Your task to perform on an android device: check the backup settings in the google photos Image 0: 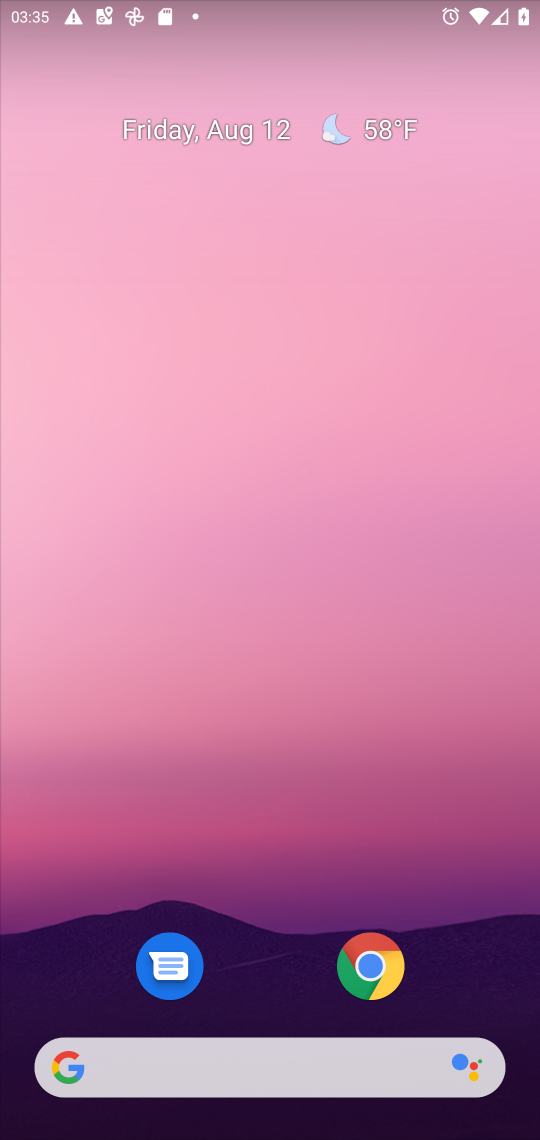
Step 0: drag from (250, 852) to (408, 55)
Your task to perform on an android device: check the backup settings in the google photos Image 1: 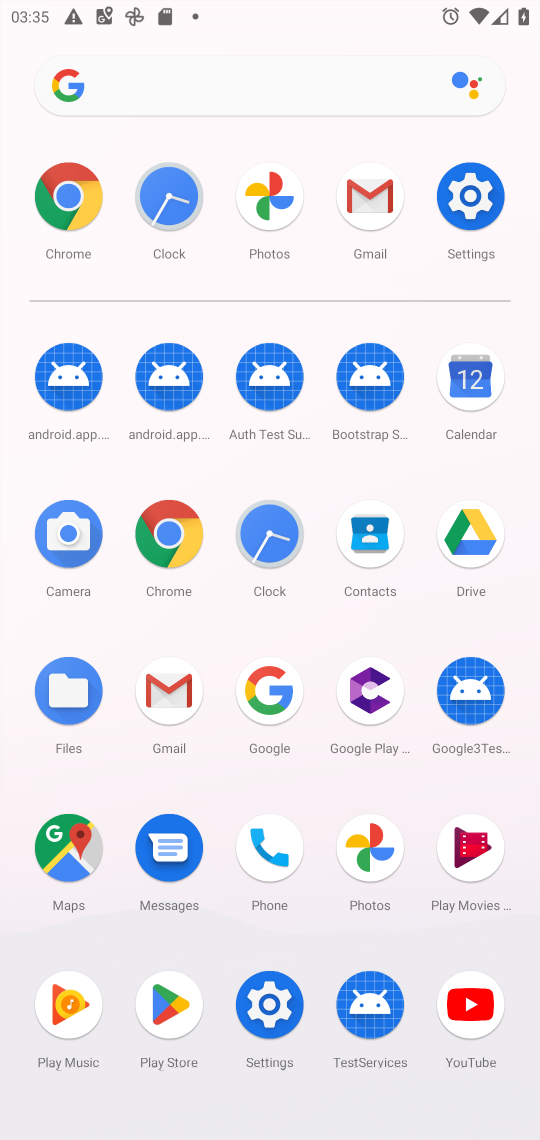
Step 1: click (353, 839)
Your task to perform on an android device: check the backup settings in the google photos Image 2: 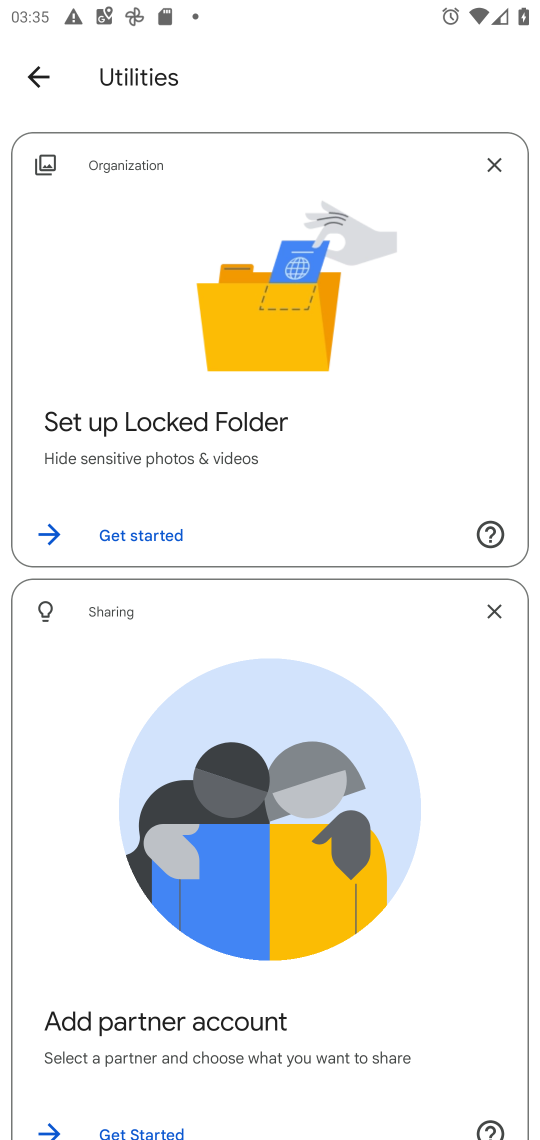
Step 2: click (31, 72)
Your task to perform on an android device: check the backup settings in the google photos Image 3: 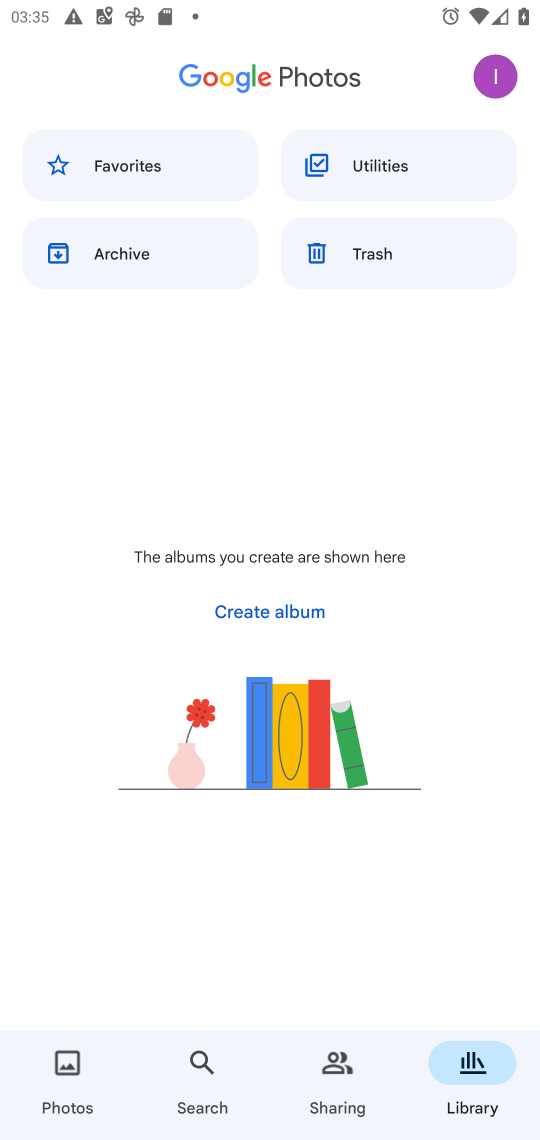
Step 3: click (500, 72)
Your task to perform on an android device: check the backup settings in the google photos Image 4: 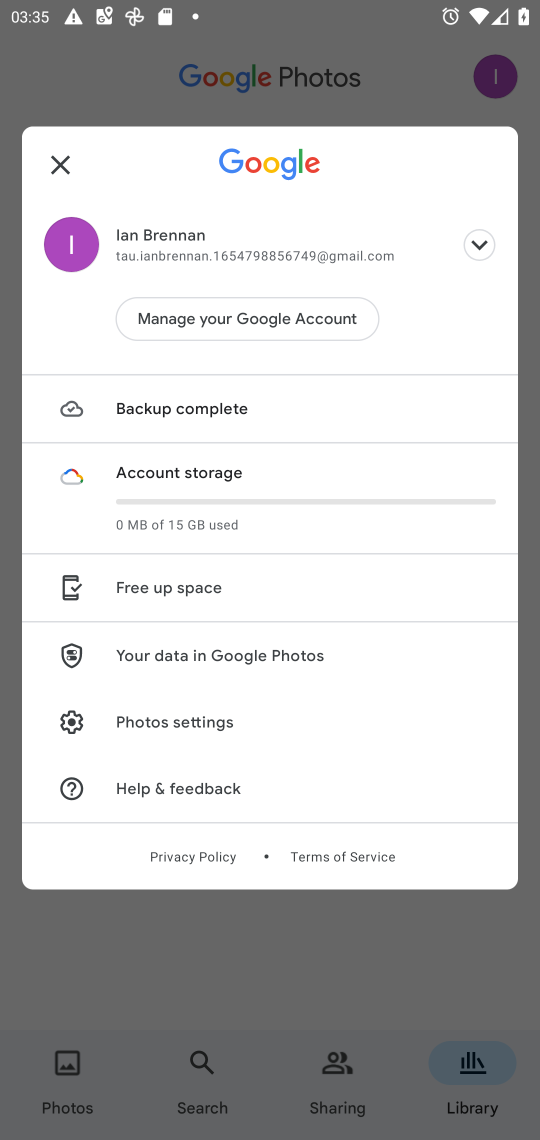
Step 4: click (184, 715)
Your task to perform on an android device: check the backup settings in the google photos Image 5: 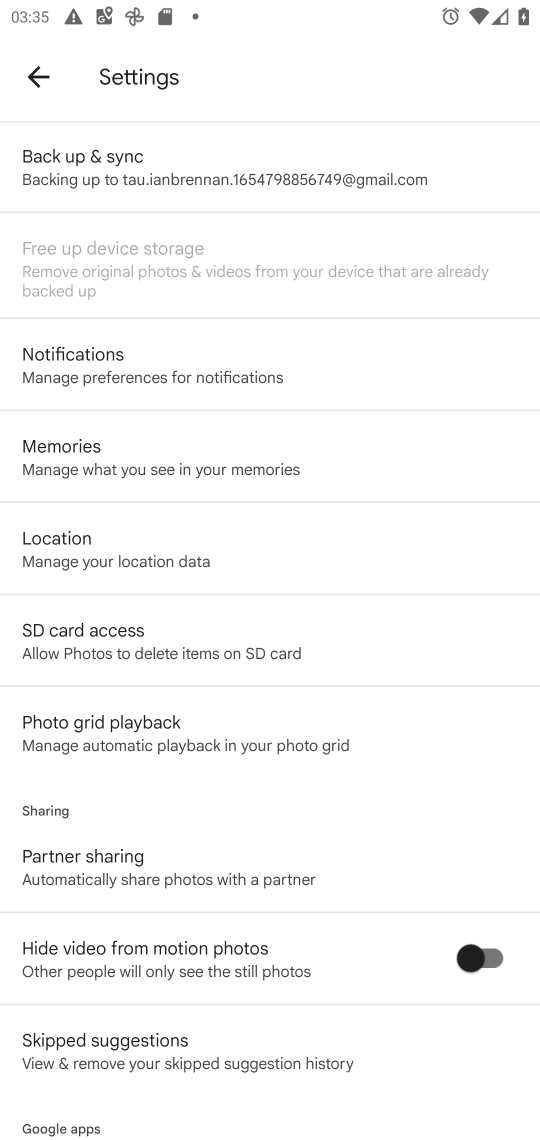
Step 5: click (207, 157)
Your task to perform on an android device: check the backup settings in the google photos Image 6: 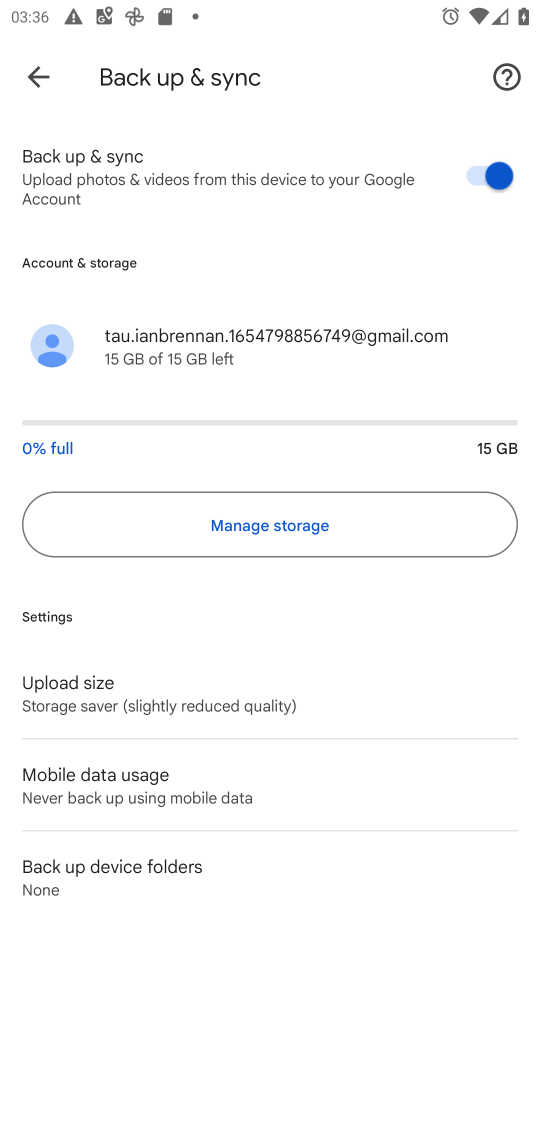
Step 6: task complete